Your task to perform on an android device: Open privacy settings Image 0: 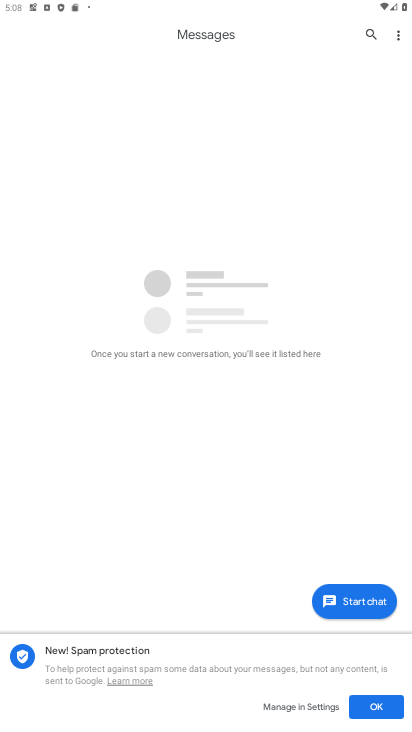
Step 0: click (197, 673)
Your task to perform on an android device: Open privacy settings Image 1: 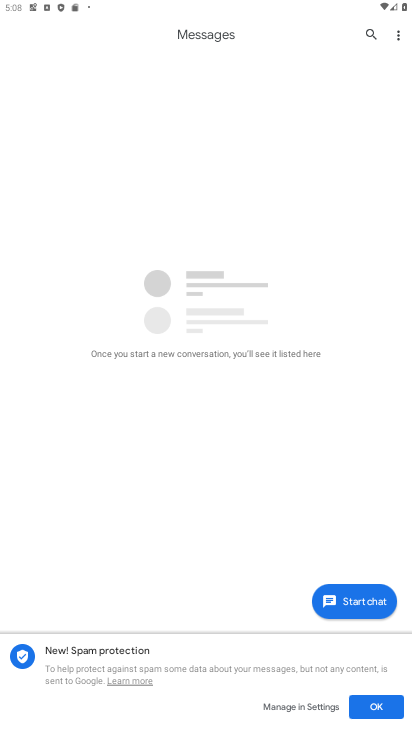
Step 1: press home button
Your task to perform on an android device: Open privacy settings Image 2: 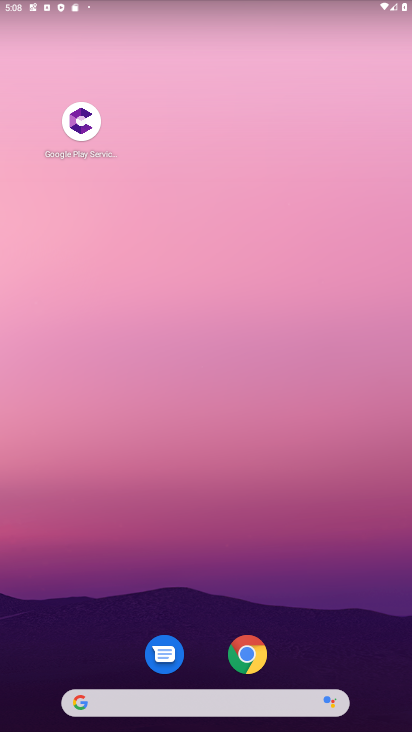
Step 2: drag from (195, 663) to (119, 163)
Your task to perform on an android device: Open privacy settings Image 3: 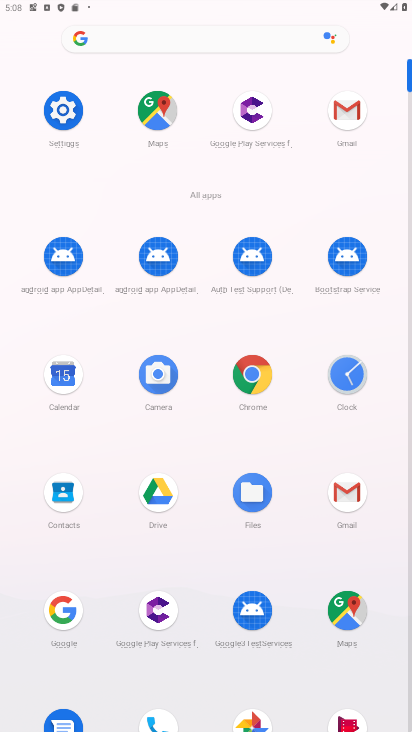
Step 3: click (66, 114)
Your task to perform on an android device: Open privacy settings Image 4: 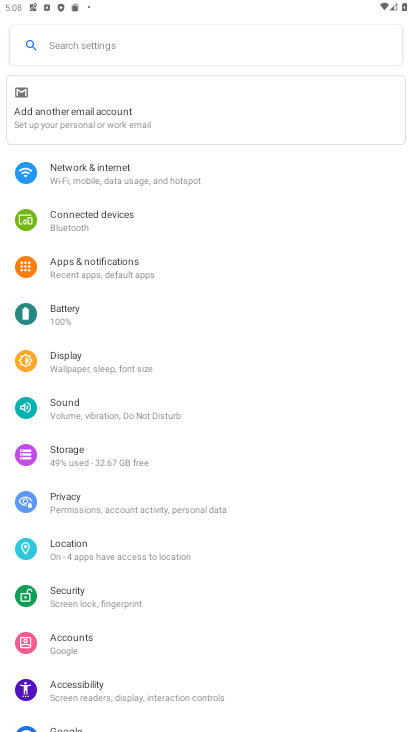
Step 4: click (86, 503)
Your task to perform on an android device: Open privacy settings Image 5: 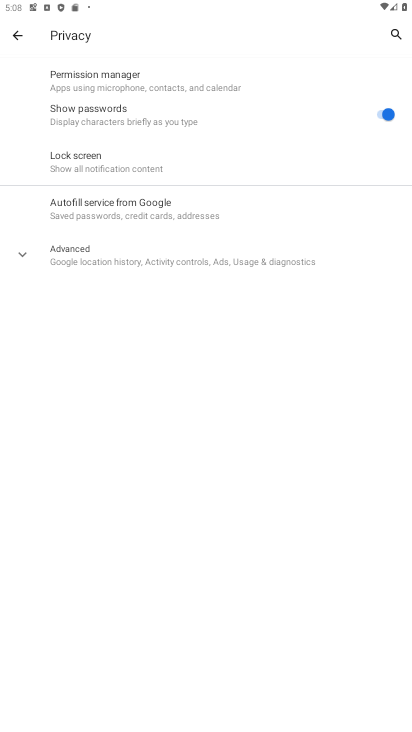
Step 5: task complete